Your task to perform on an android device: Open Google Image 0: 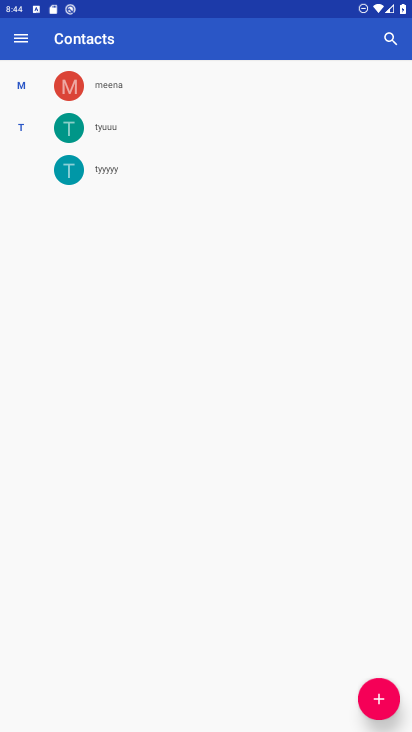
Step 0: press home button
Your task to perform on an android device: Open Google Image 1: 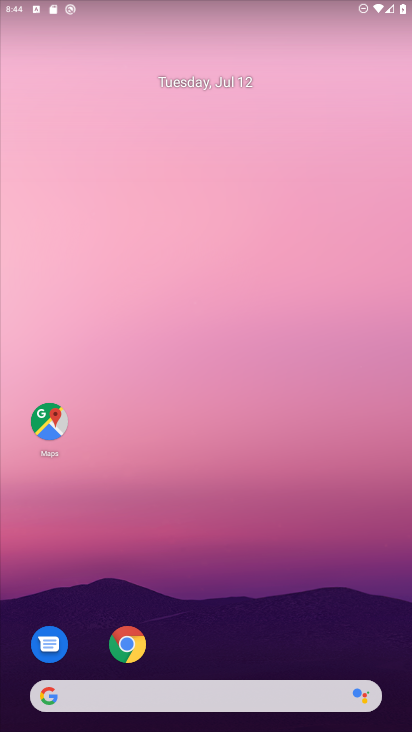
Step 1: click (130, 638)
Your task to perform on an android device: Open Google Image 2: 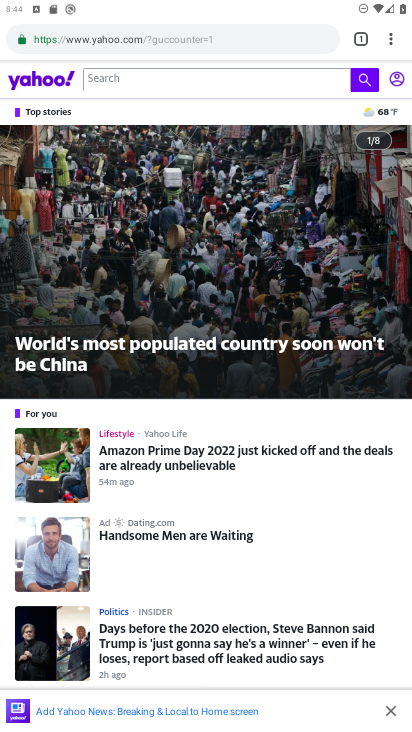
Step 2: task complete